Your task to perform on an android device: Go to display settings Image 0: 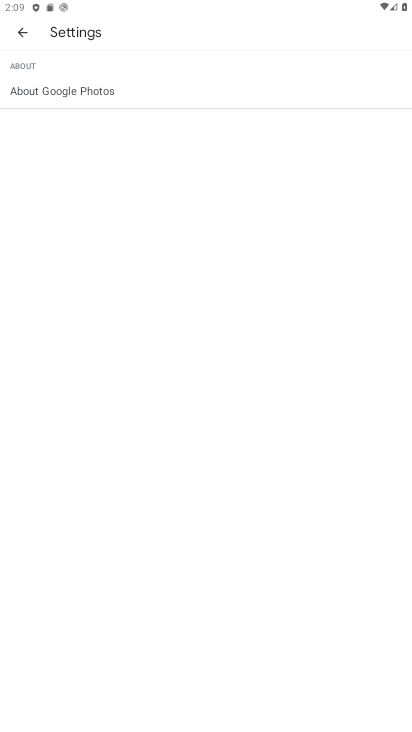
Step 0: press home button
Your task to perform on an android device: Go to display settings Image 1: 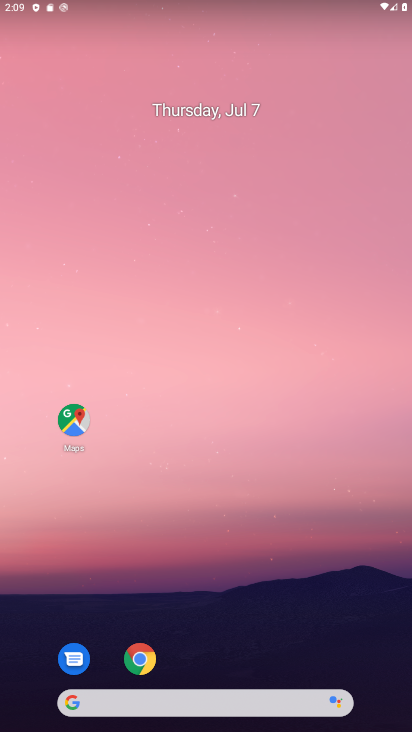
Step 1: drag from (218, 572) to (115, 148)
Your task to perform on an android device: Go to display settings Image 2: 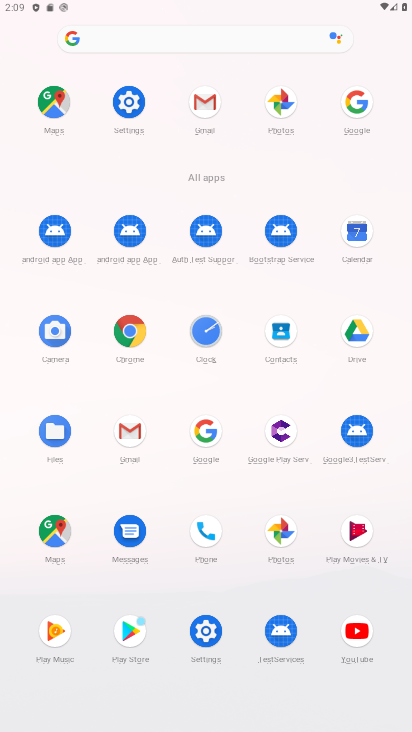
Step 2: click (131, 101)
Your task to perform on an android device: Go to display settings Image 3: 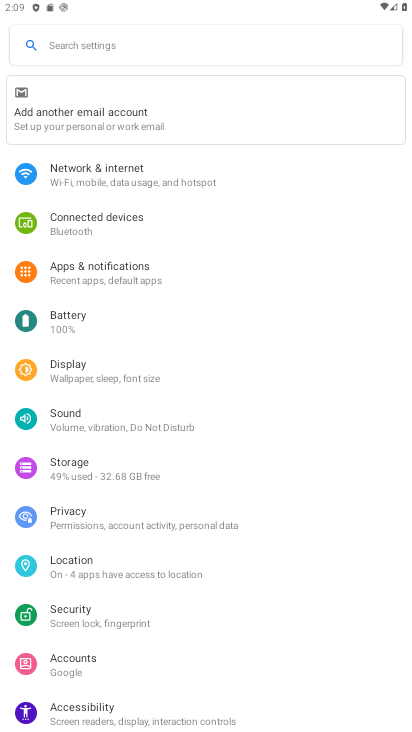
Step 3: click (64, 367)
Your task to perform on an android device: Go to display settings Image 4: 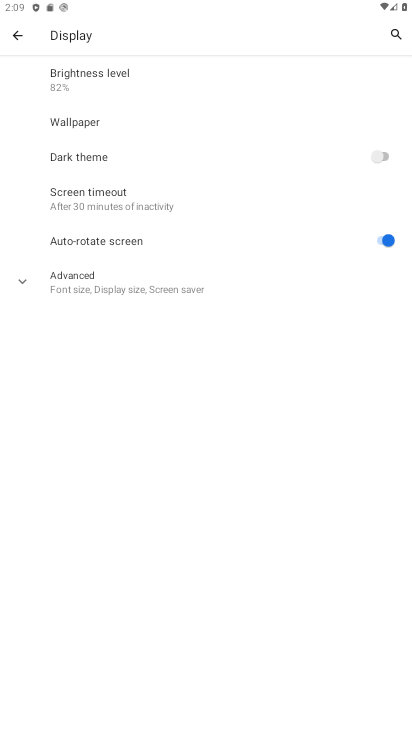
Step 4: task complete